Your task to perform on an android device: Check the news Image 0: 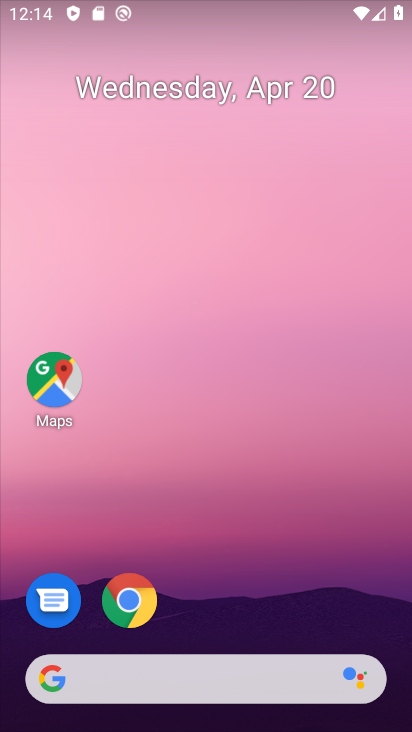
Step 0: drag from (331, 545) to (222, 1)
Your task to perform on an android device: Check the news Image 1: 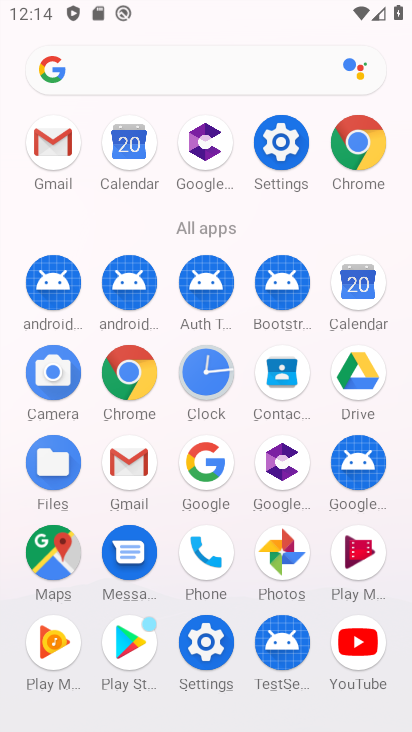
Step 1: drag from (8, 467) to (20, 215)
Your task to perform on an android device: Check the news Image 2: 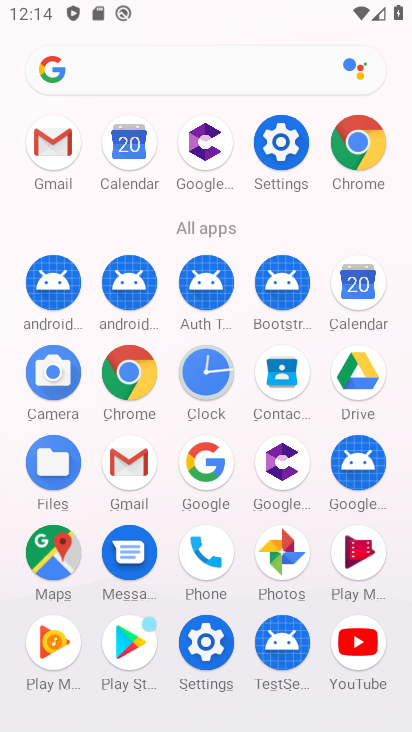
Step 2: drag from (7, 576) to (14, 350)
Your task to perform on an android device: Check the news Image 3: 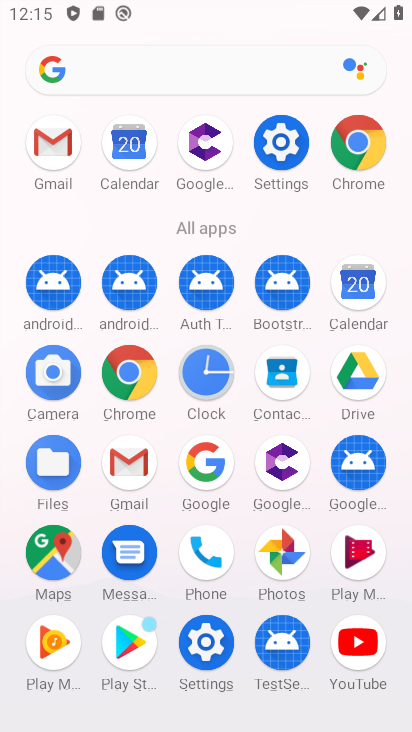
Step 3: click (210, 454)
Your task to perform on an android device: Check the news Image 4: 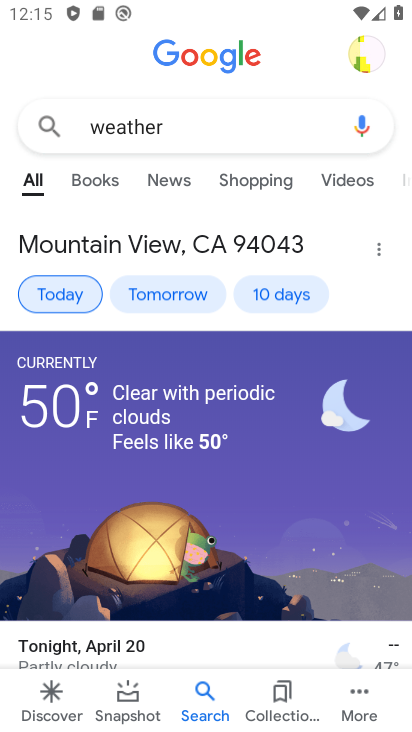
Step 4: click (163, 179)
Your task to perform on an android device: Check the news Image 5: 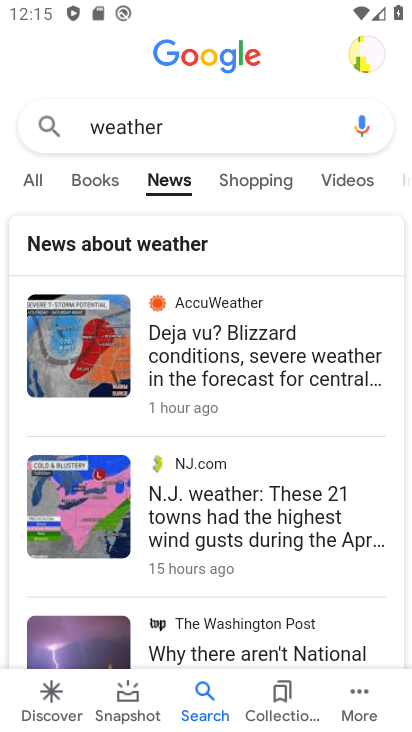
Step 5: task complete